Your task to perform on an android device: change the clock display to show seconds Image 0: 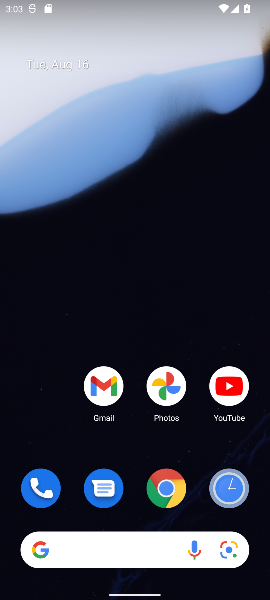
Step 0: drag from (91, 325) to (92, 120)
Your task to perform on an android device: change the clock display to show seconds Image 1: 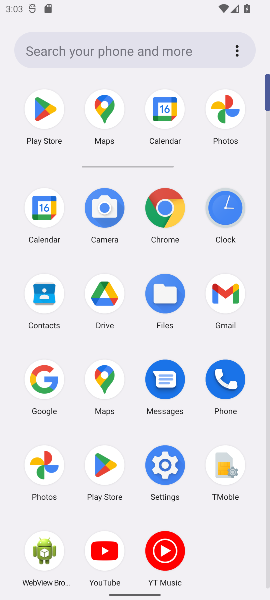
Step 1: click (218, 219)
Your task to perform on an android device: change the clock display to show seconds Image 2: 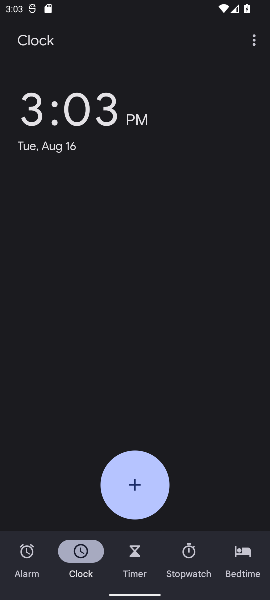
Step 2: task complete